Your task to perform on an android device: Search for "asus rog" on newegg.com, select the first entry, and add it to the cart. Image 0: 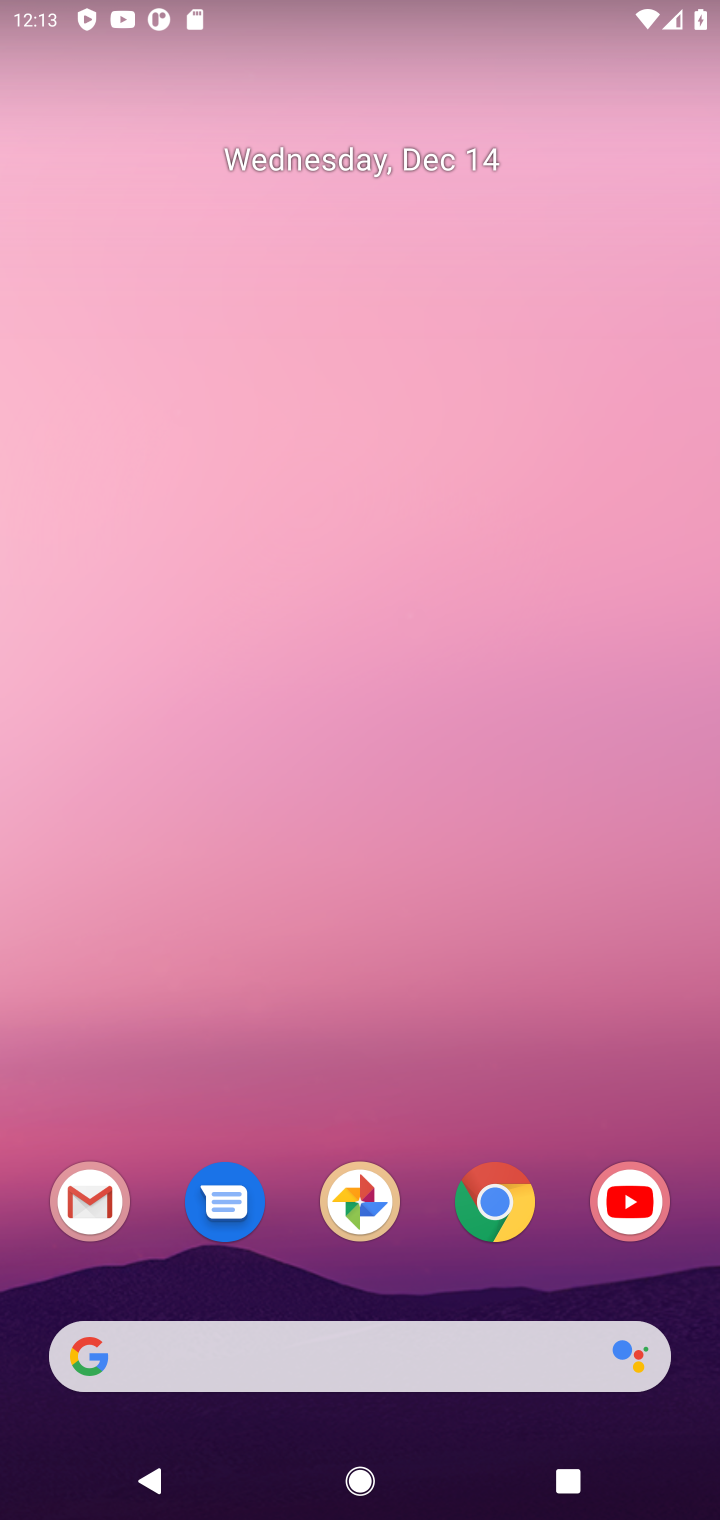
Step 0: click (503, 1204)
Your task to perform on an android device: Search for "asus rog" on newegg.com, select the first entry, and add it to the cart. Image 1: 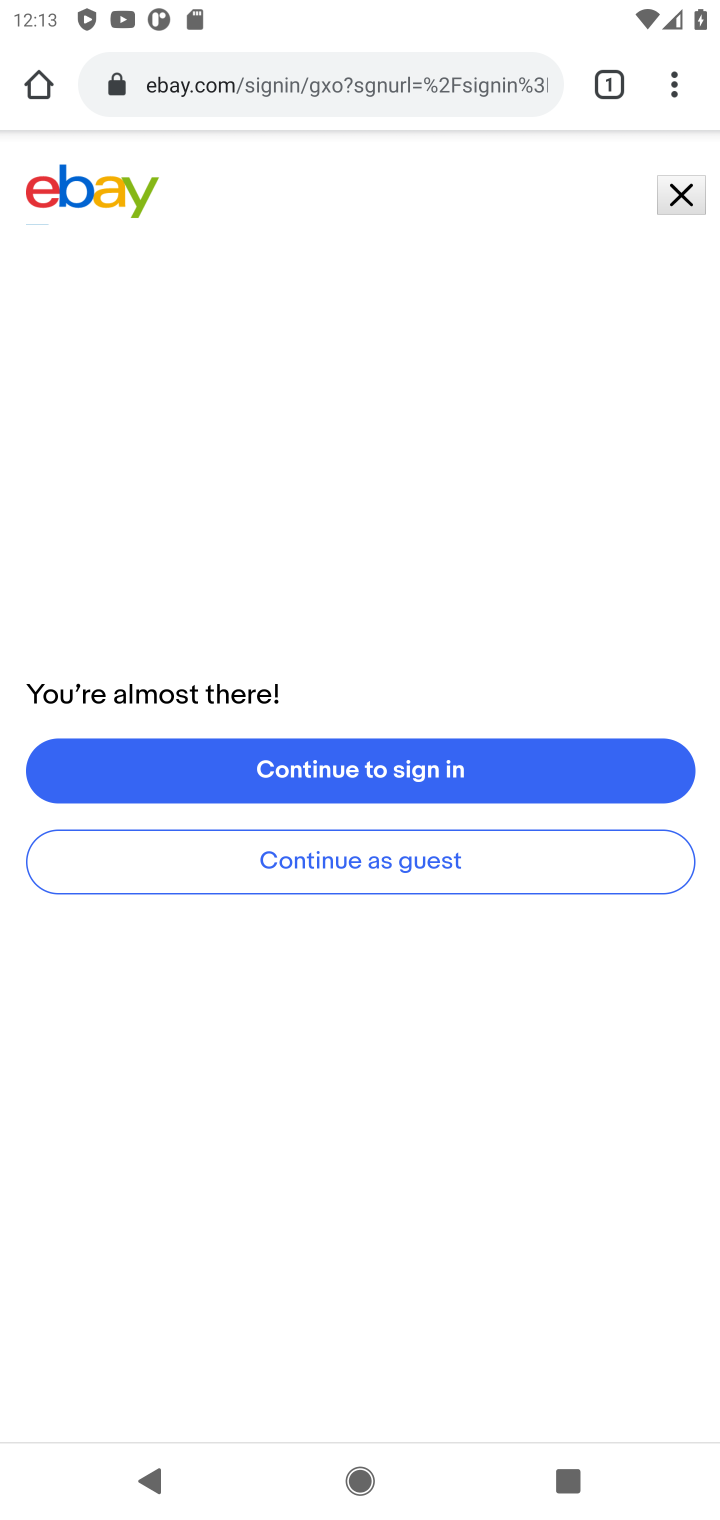
Step 1: click (352, 84)
Your task to perform on an android device: Search for "asus rog" on newegg.com, select the first entry, and add it to the cart. Image 2: 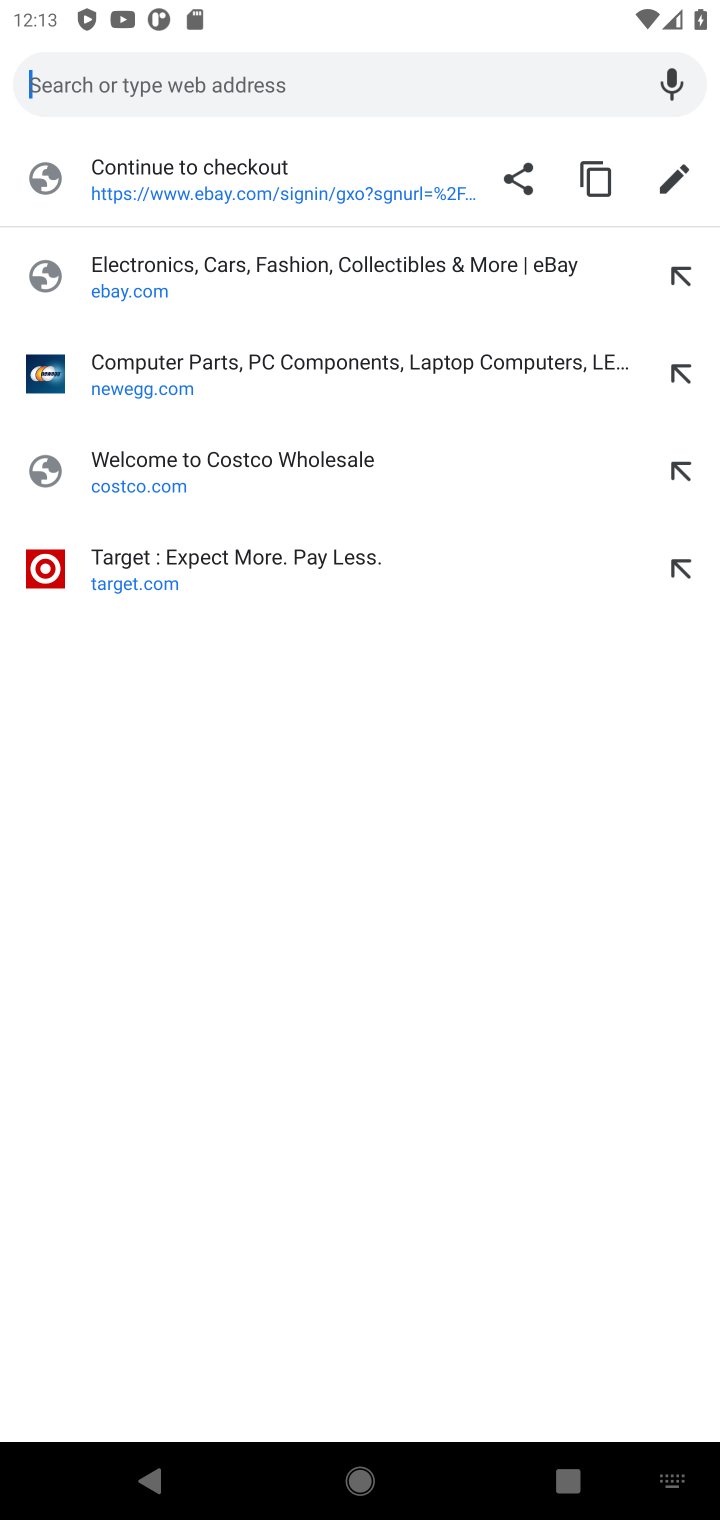
Step 2: click (153, 388)
Your task to perform on an android device: Search for "asus rog" on newegg.com, select the first entry, and add it to the cart. Image 3: 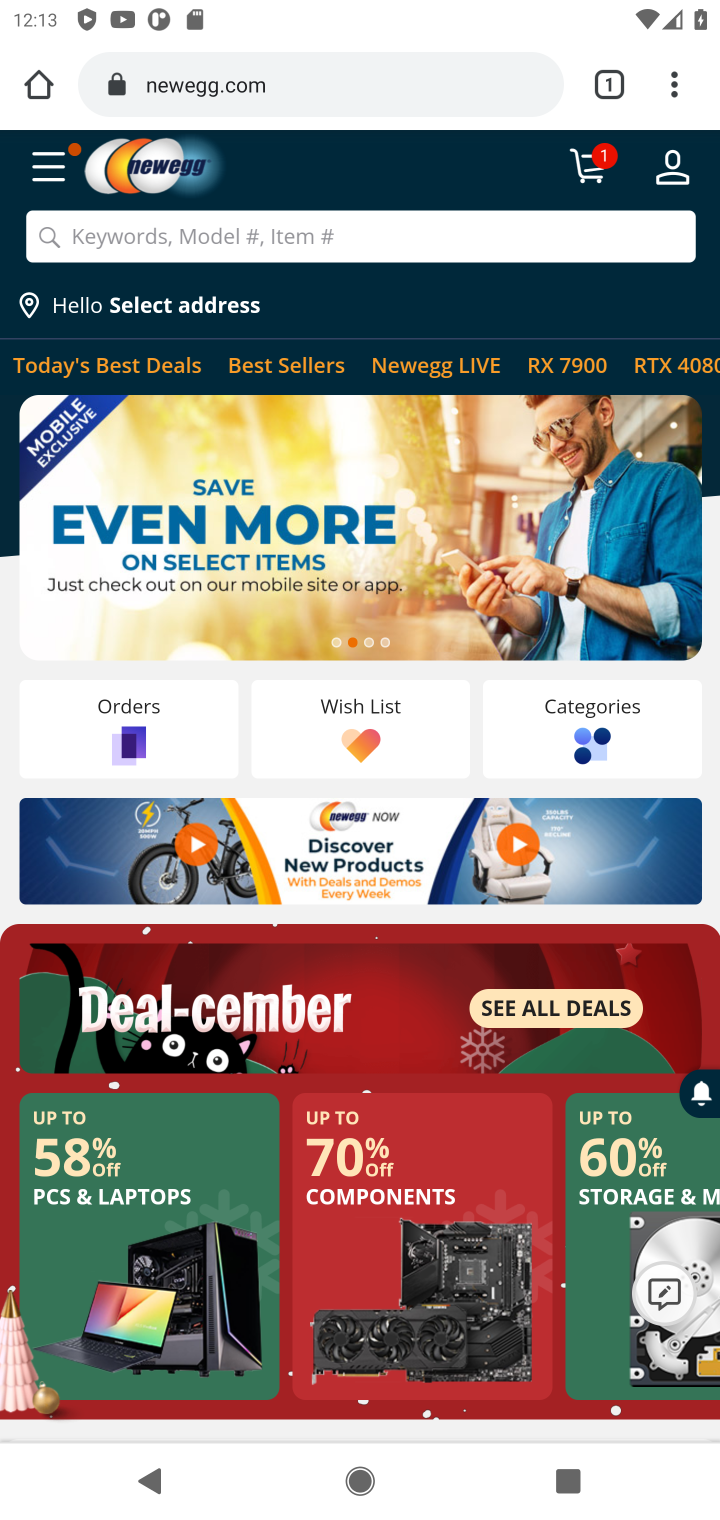
Step 3: click (317, 225)
Your task to perform on an android device: Search for "asus rog" on newegg.com, select the first entry, and add it to the cart. Image 4: 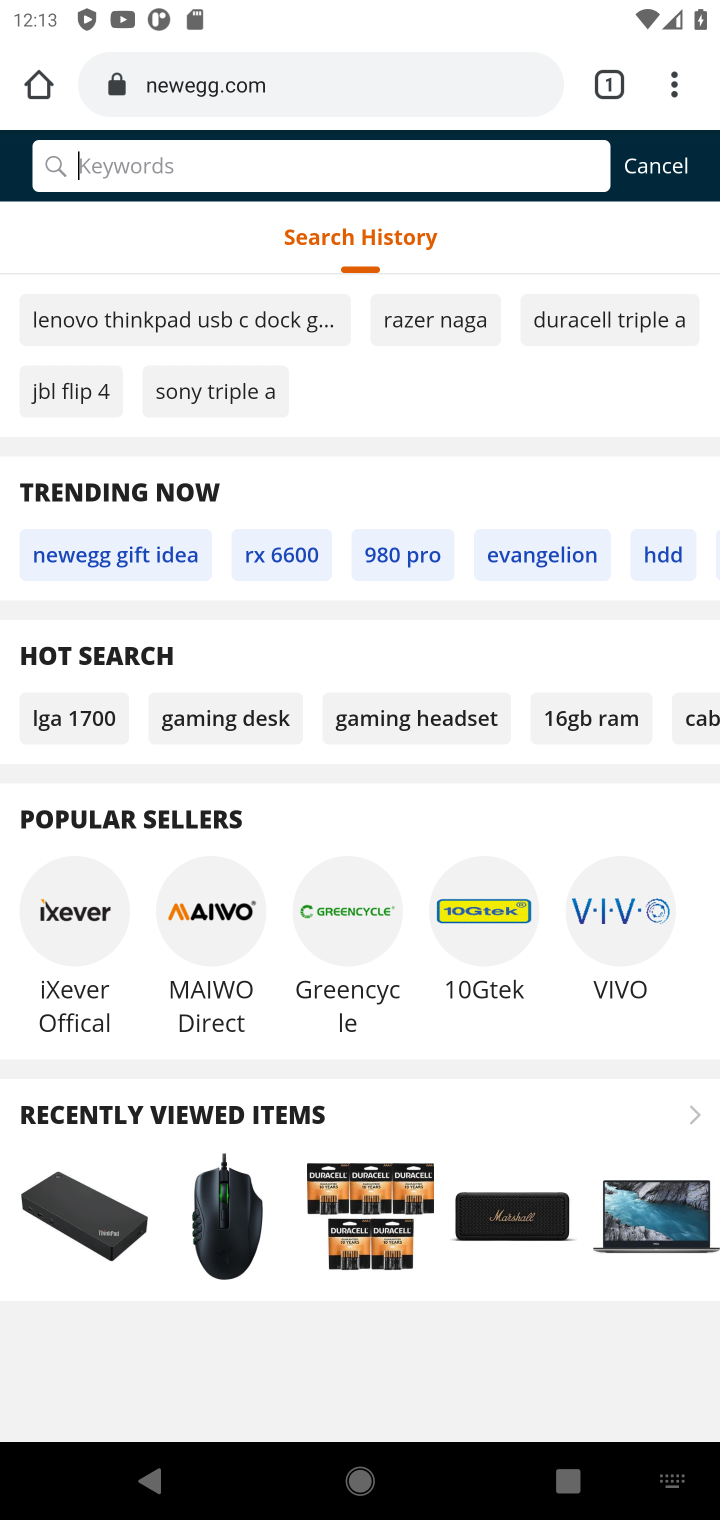
Step 4: type "asus rog"
Your task to perform on an android device: Search for "asus rog" on newegg.com, select the first entry, and add it to the cart. Image 5: 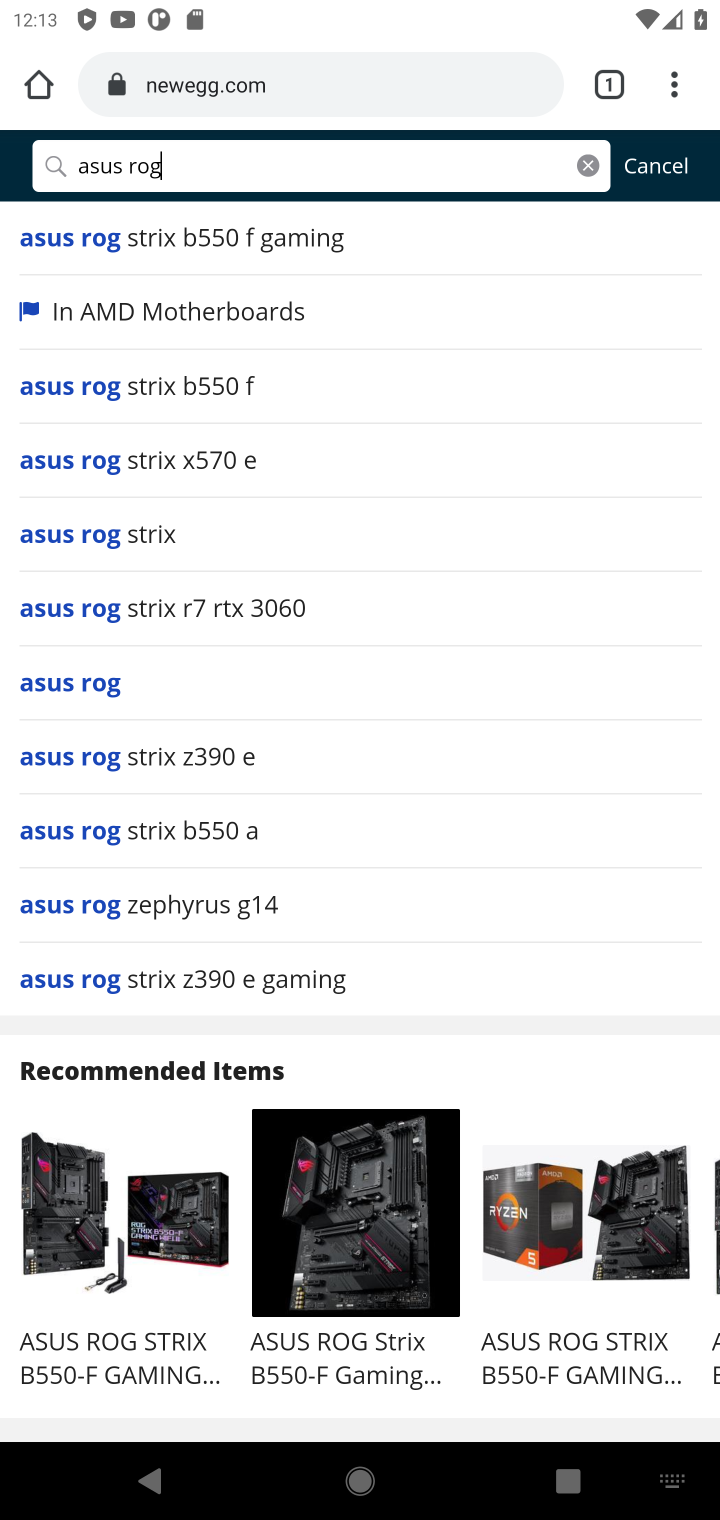
Step 5: click (150, 235)
Your task to perform on an android device: Search for "asus rog" on newegg.com, select the first entry, and add it to the cart. Image 6: 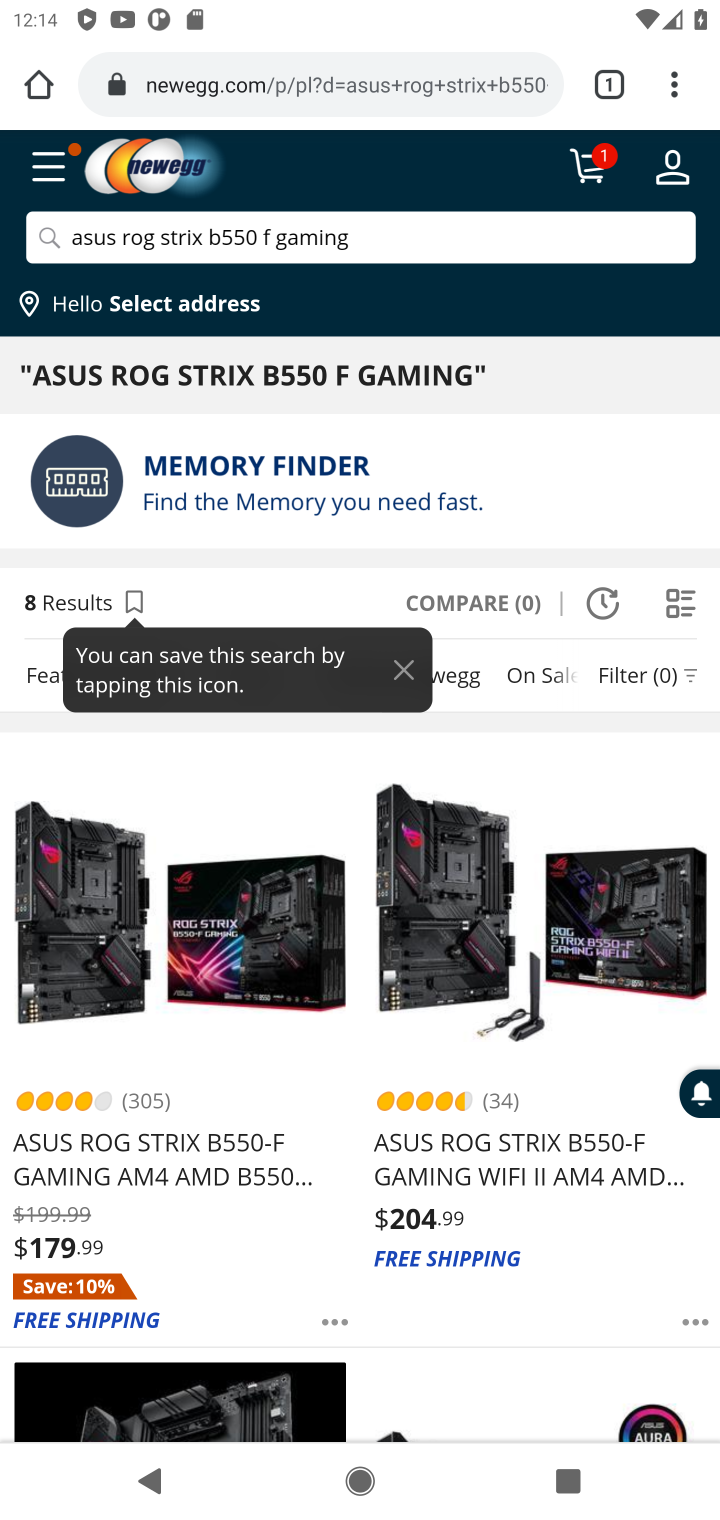
Step 6: click (203, 907)
Your task to perform on an android device: Search for "asus rog" on newegg.com, select the first entry, and add it to the cart. Image 7: 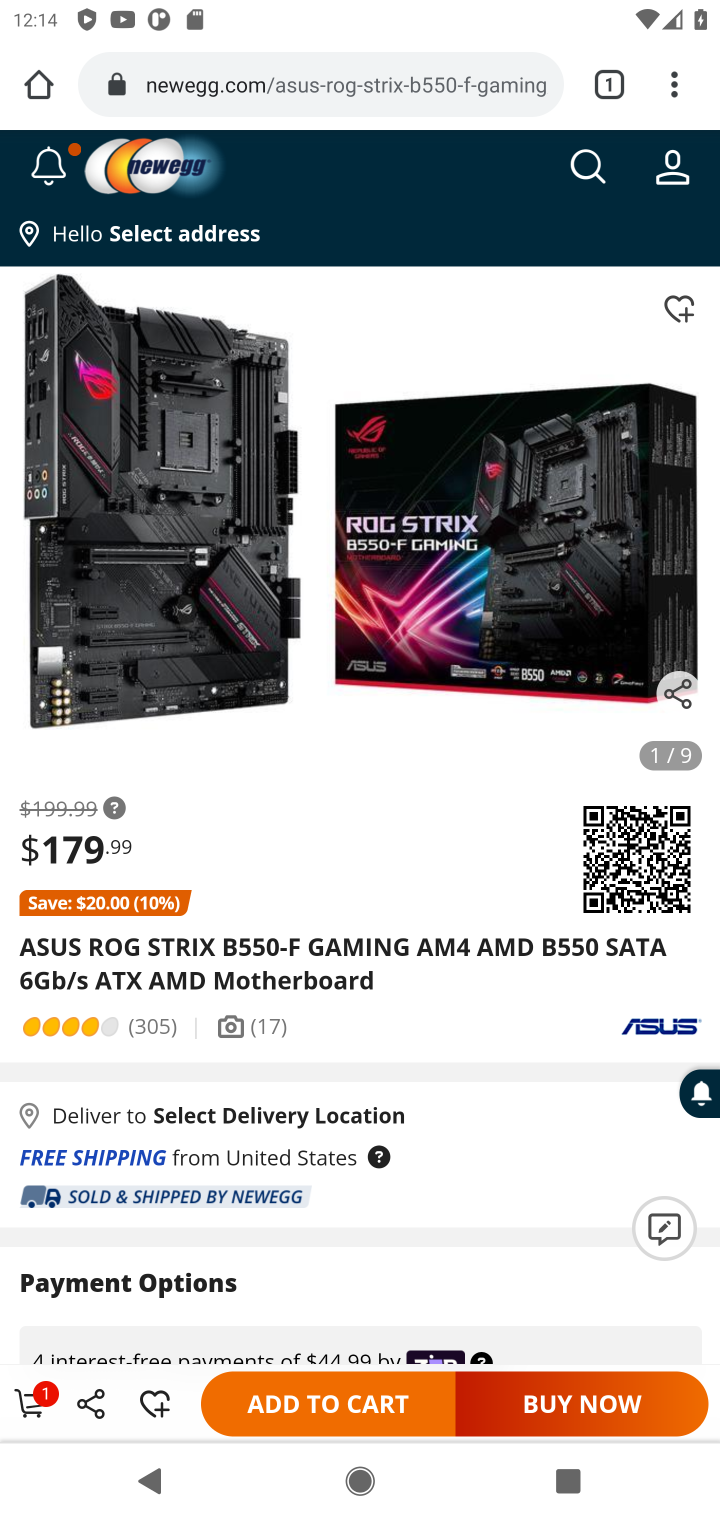
Step 7: click (325, 1412)
Your task to perform on an android device: Search for "asus rog" on newegg.com, select the first entry, and add it to the cart. Image 8: 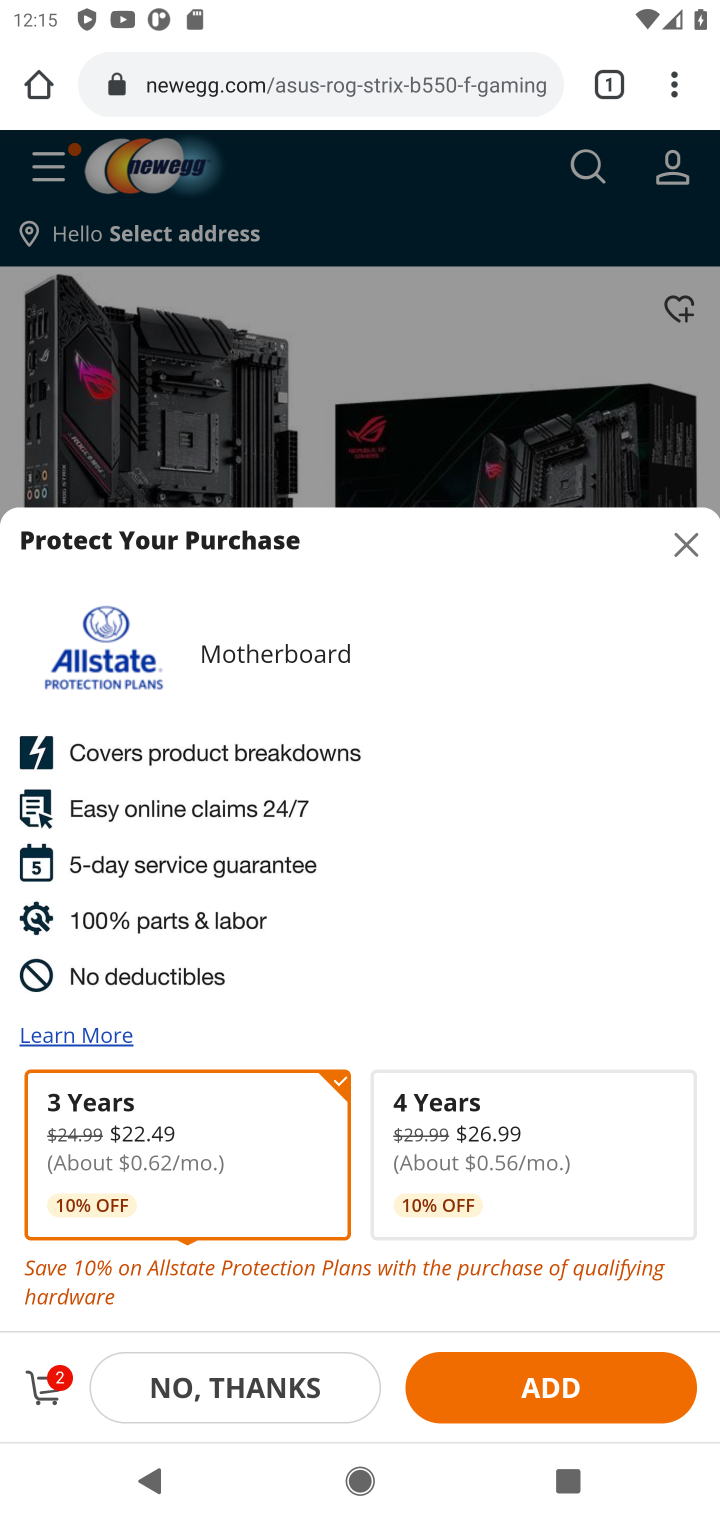
Step 8: click (41, 1378)
Your task to perform on an android device: Search for "asus rog" on newegg.com, select the first entry, and add it to the cart. Image 9: 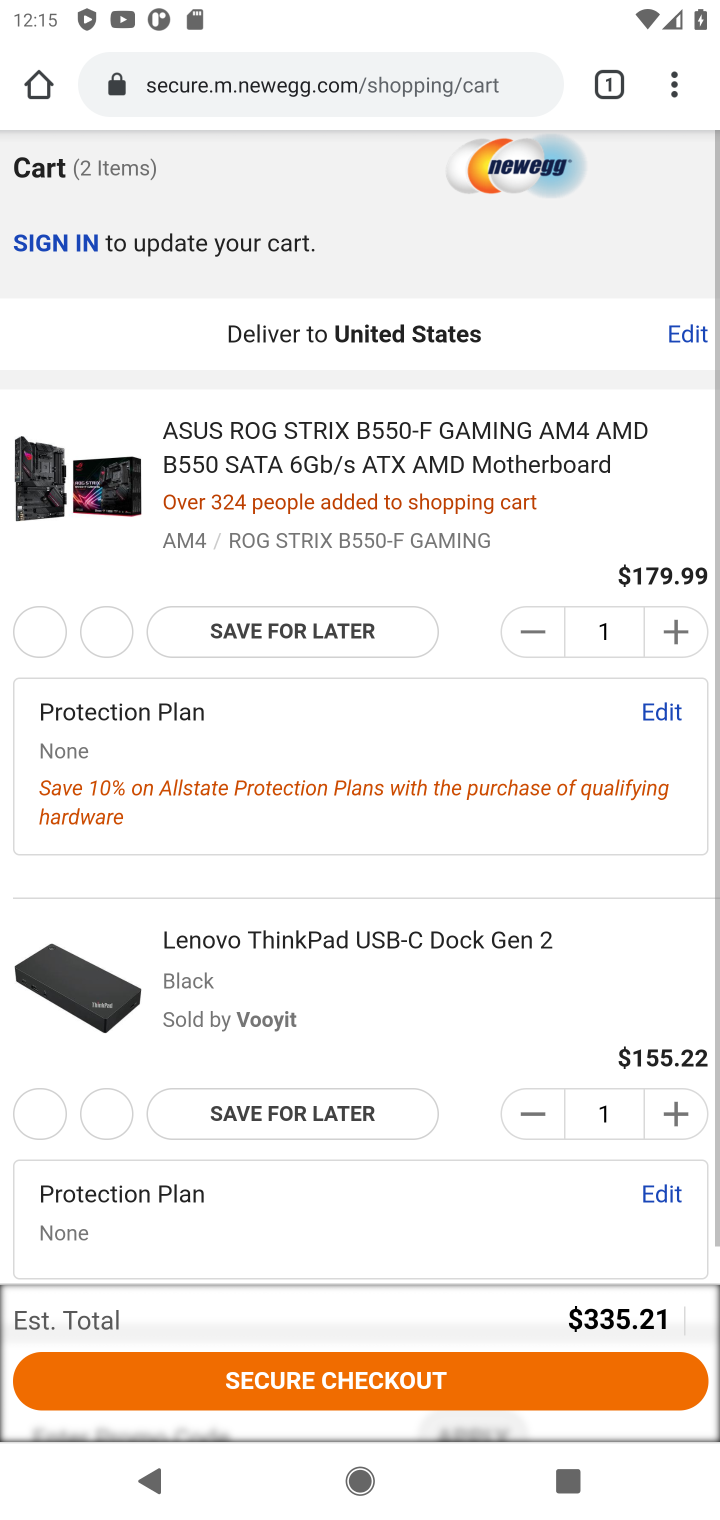
Step 9: task complete